Your task to perform on an android device: toggle notification dots Image 0: 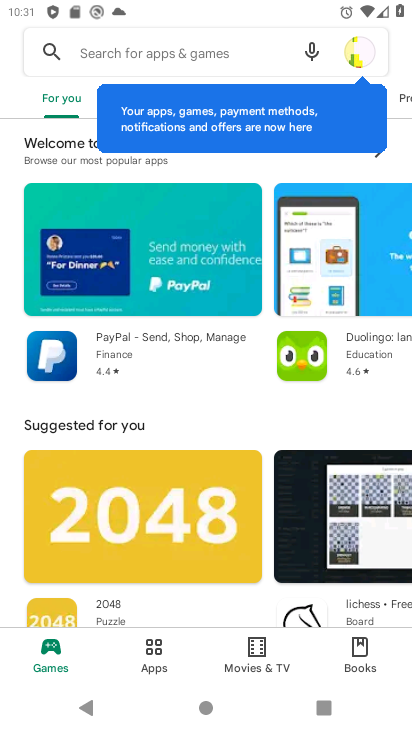
Step 0: press back button
Your task to perform on an android device: toggle notification dots Image 1: 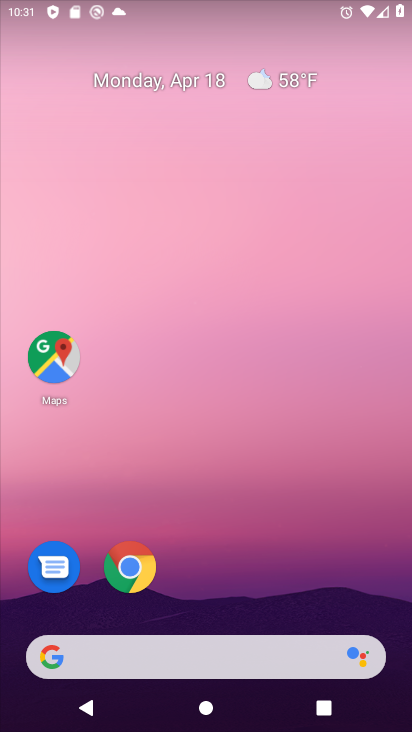
Step 1: drag from (215, 729) to (211, 36)
Your task to perform on an android device: toggle notification dots Image 2: 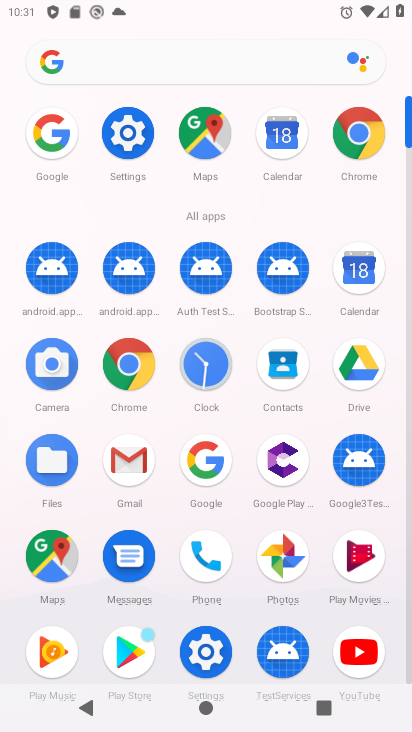
Step 2: click (122, 133)
Your task to perform on an android device: toggle notification dots Image 3: 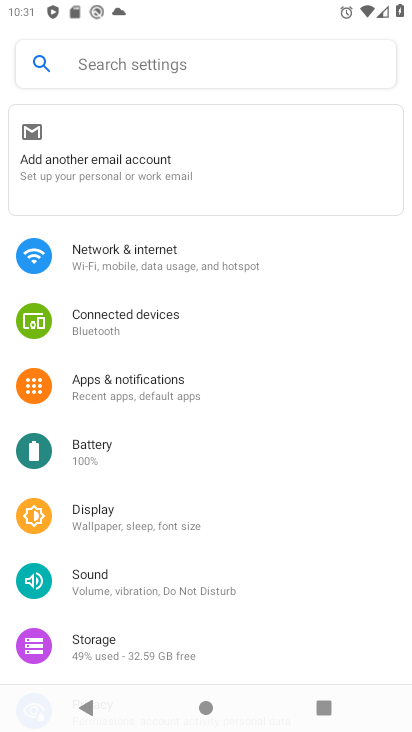
Step 3: click (134, 390)
Your task to perform on an android device: toggle notification dots Image 4: 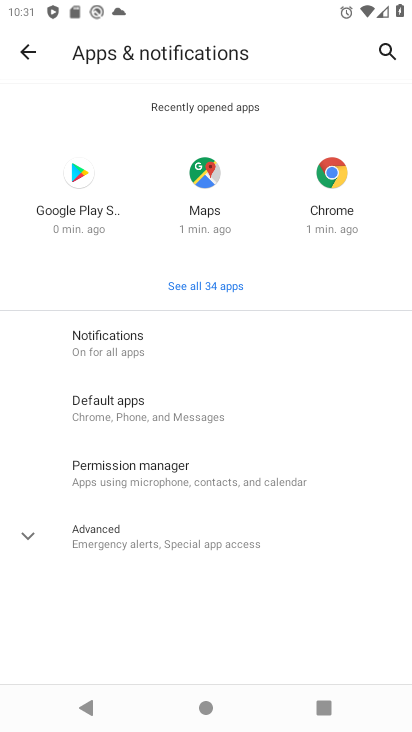
Step 4: click (102, 345)
Your task to perform on an android device: toggle notification dots Image 5: 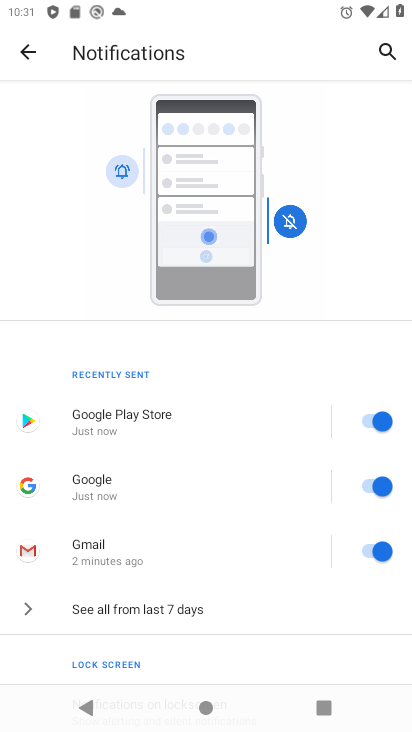
Step 5: drag from (194, 665) to (179, 170)
Your task to perform on an android device: toggle notification dots Image 6: 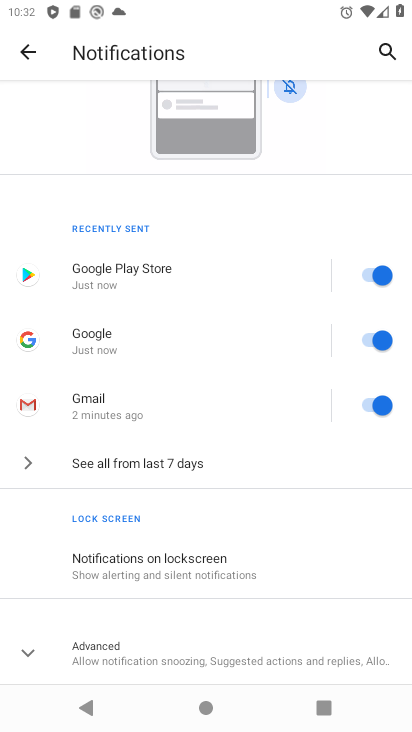
Step 6: click (164, 648)
Your task to perform on an android device: toggle notification dots Image 7: 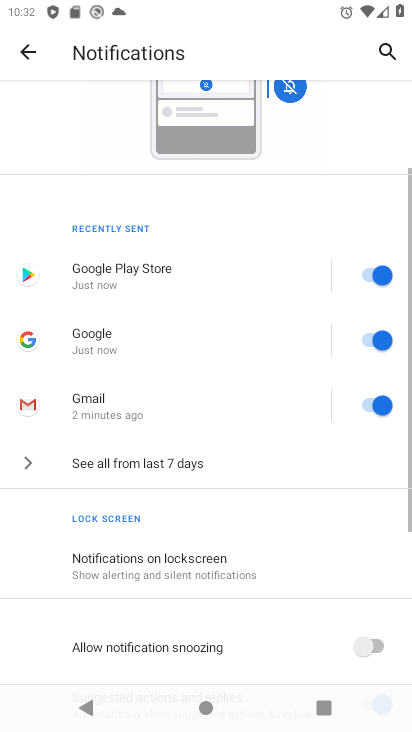
Step 7: drag from (197, 633) to (198, 194)
Your task to perform on an android device: toggle notification dots Image 8: 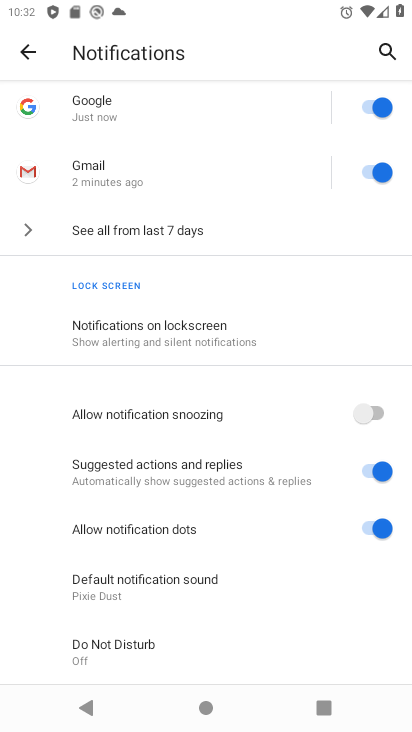
Step 8: click (368, 526)
Your task to perform on an android device: toggle notification dots Image 9: 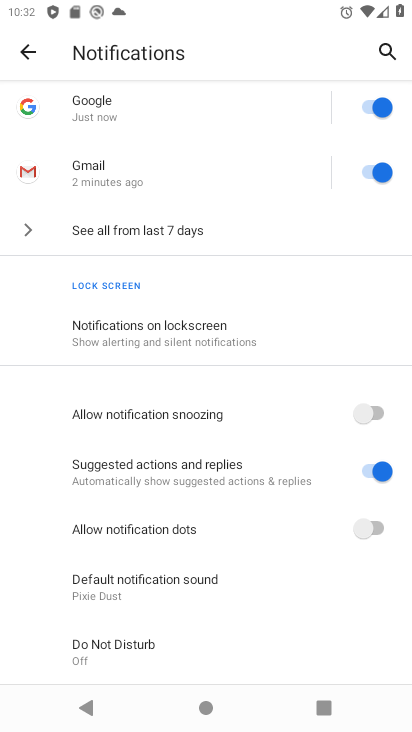
Step 9: task complete